Your task to perform on an android device: Toggle the flashlight Image 0: 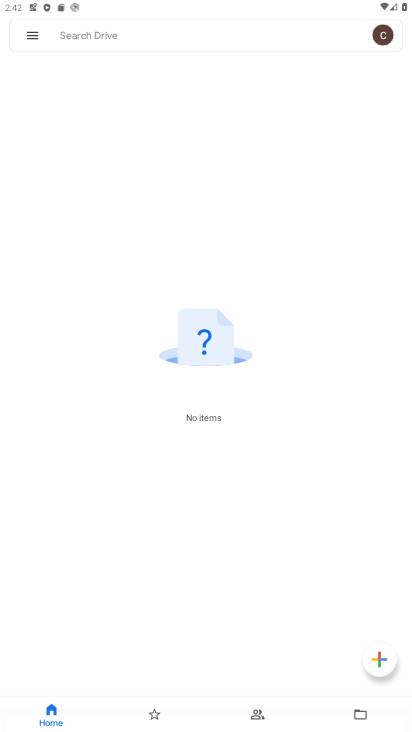
Step 0: press home button
Your task to perform on an android device: Toggle the flashlight Image 1: 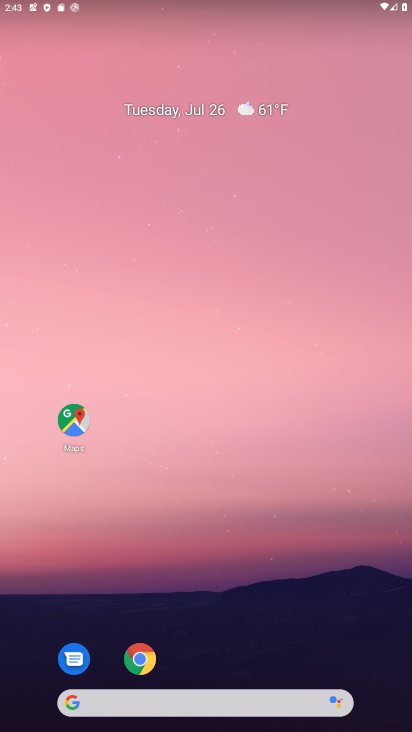
Step 1: task complete